Your task to perform on an android device: clear all cookies in the chrome app Image 0: 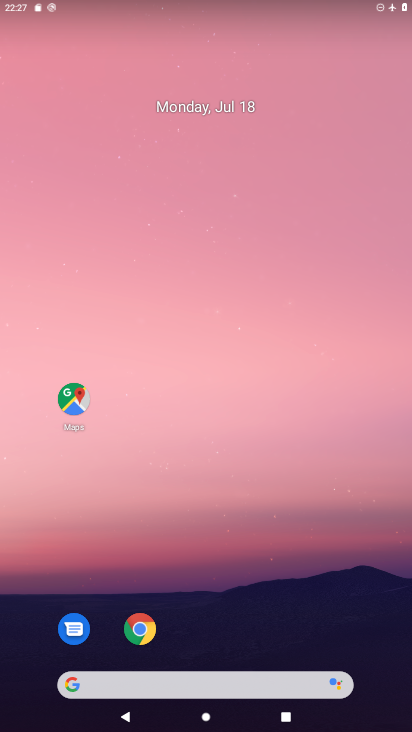
Step 0: drag from (323, 579) to (236, 73)
Your task to perform on an android device: clear all cookies in the chrome app Image 1: 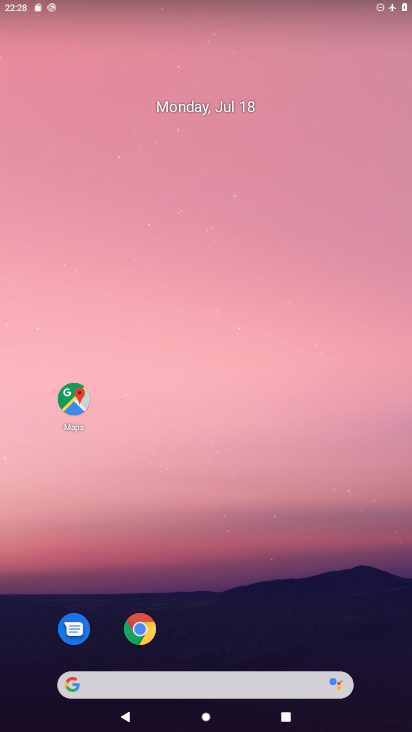
Step 1: drag from (306, 573) to (222, 50)
Your task to perform on an android device: clear all cookies in the chrome app Image 2: 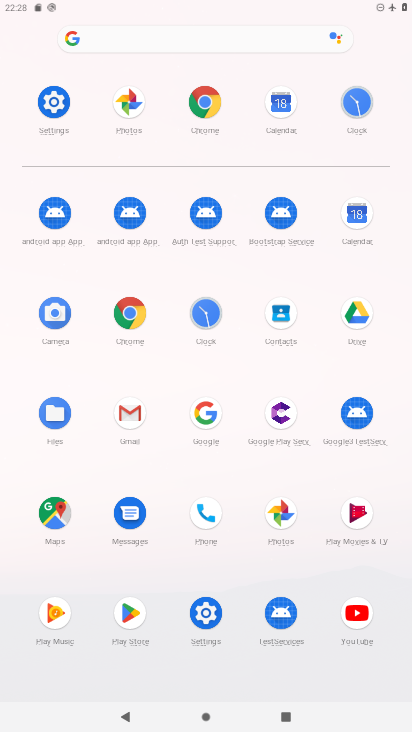
Step 2: click (201, 102)
Your task to perform on an android device: clear all cookies in the chrome app Image 3: 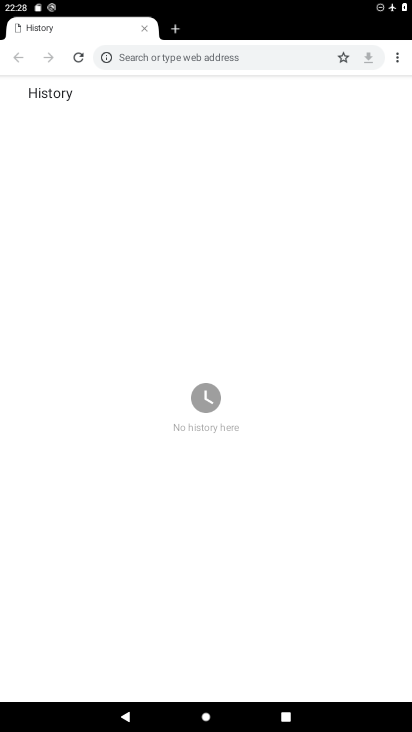
Step 3: task complete